Your task to perform on an android device: set the stopwatch Image 0: 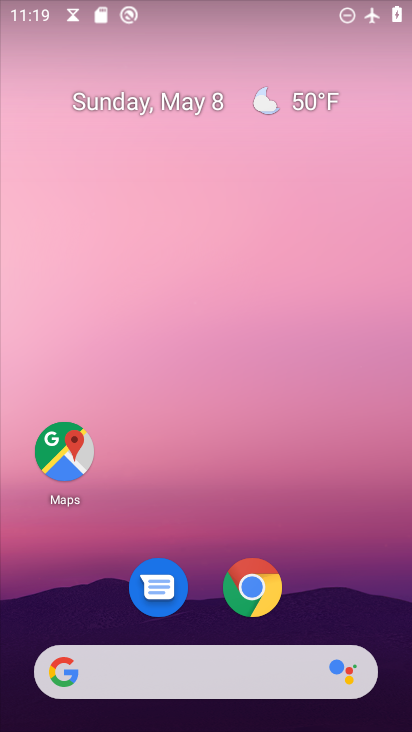
Step 0: drag from (341, 609) to (274, 98)
Your task to perform on an android device: set the stopwatch Image 1: 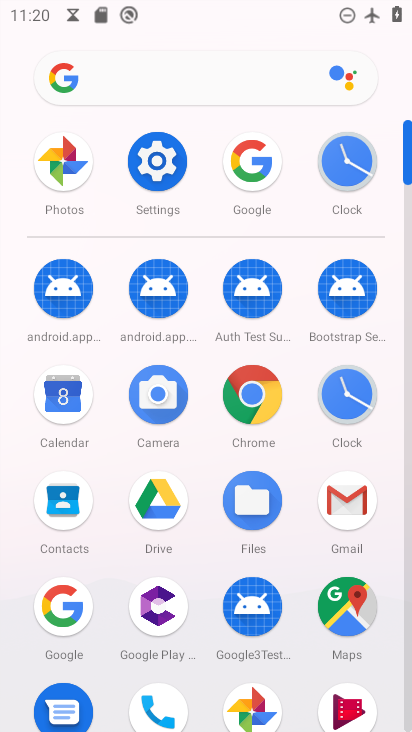
Step 1: click (350, 175)
Your task to perform on an android device: set the stopwatch Image 2: 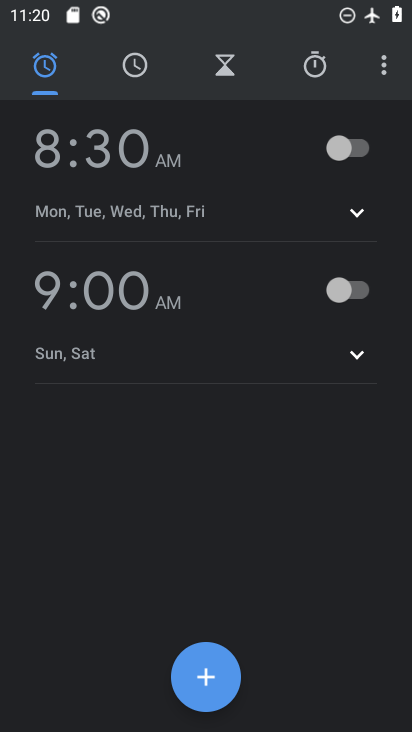
Step 2: click (313, 57)
Your task to perform on an android device: set the stopwatch Image 3: 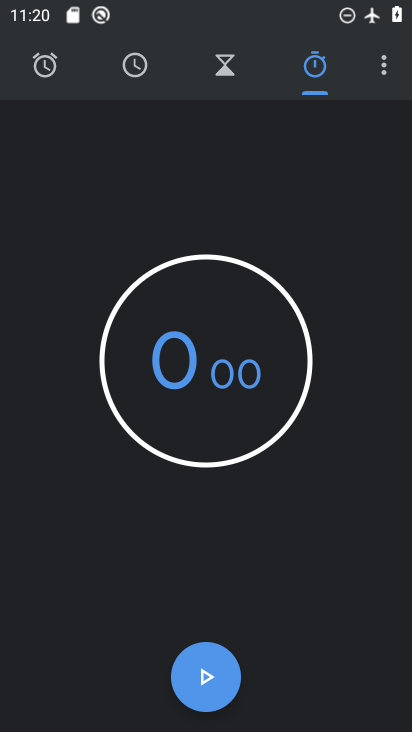
Step 3: click (213, 680)
Your task to perform on an android device: set the stopwatch Image 4: 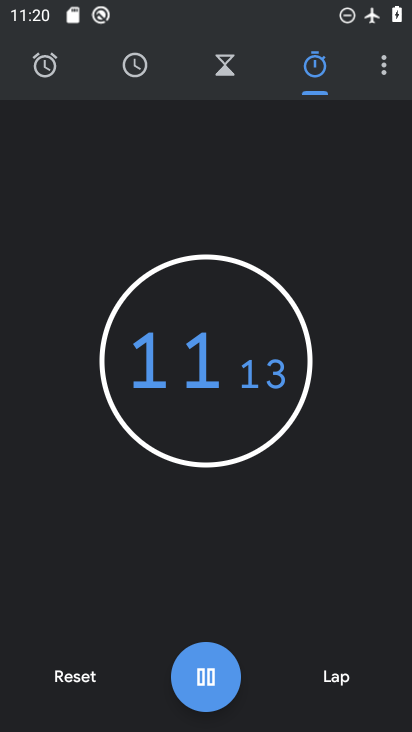
Step 4: click (213, 680)
Your task to perform on an android device: set the stopwatch Image 5: 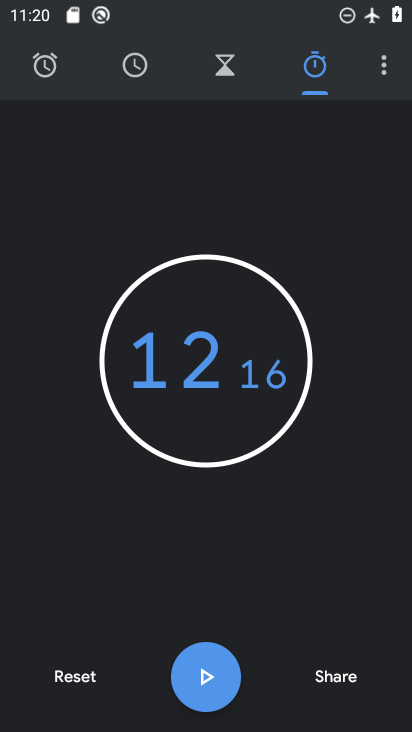
Step 5: task complete